Your task to perform on an android device: toggle data saver in the chrome app Image 0: 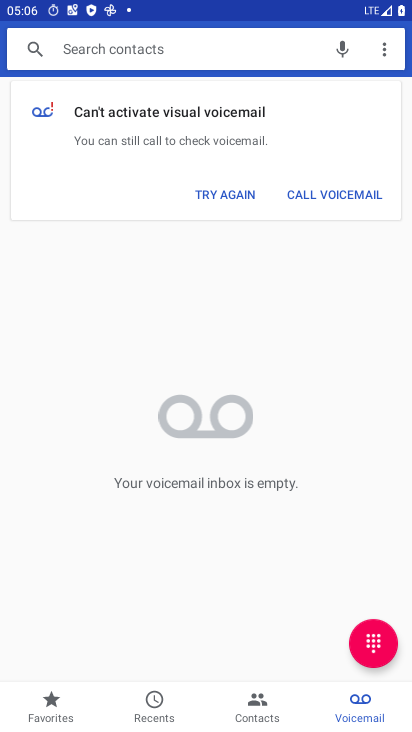
Step 0: press home button
Your task to perform on an android device: toggle data saver in the chrome app Image 1: 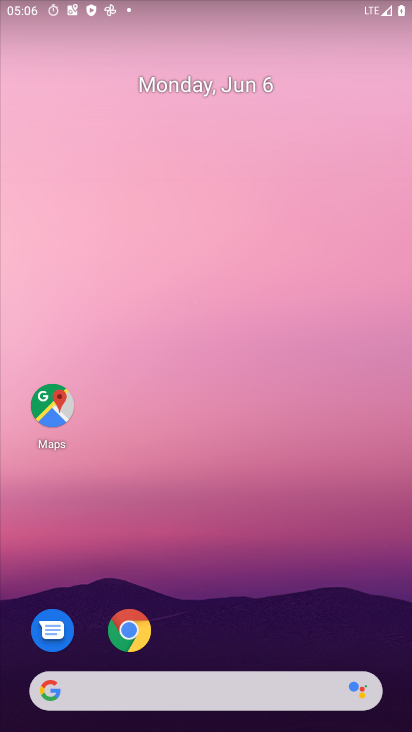
Step 1: drag from (297, 627) to (316, 78)
Your task to perform on an android device: toggle data saver in the chrome app Image 2: 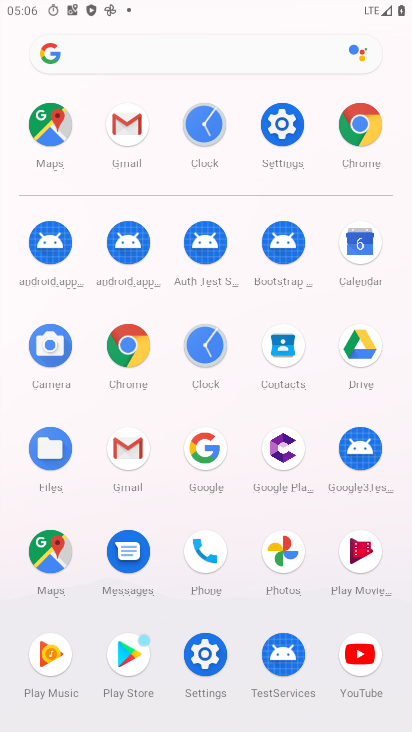
Step 2: click (117, 334)
Your task to perform on an android device: toggle data saver in the chrome app Image 3: 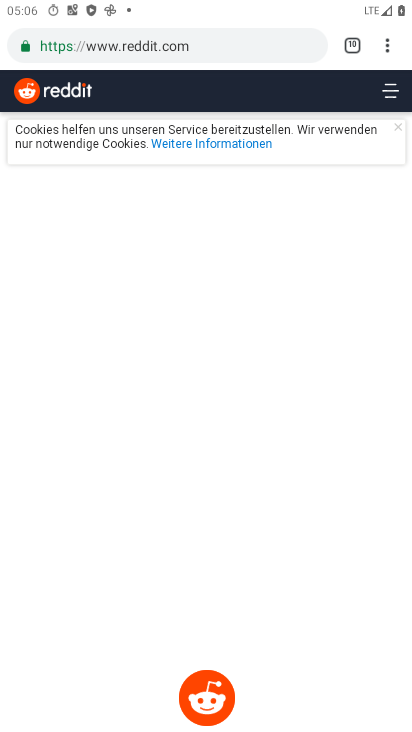
Step 3: drag from (383, 47) to (223, 554)
Your task to perform on an android device: toggle data saver in the chrome app Image 4: 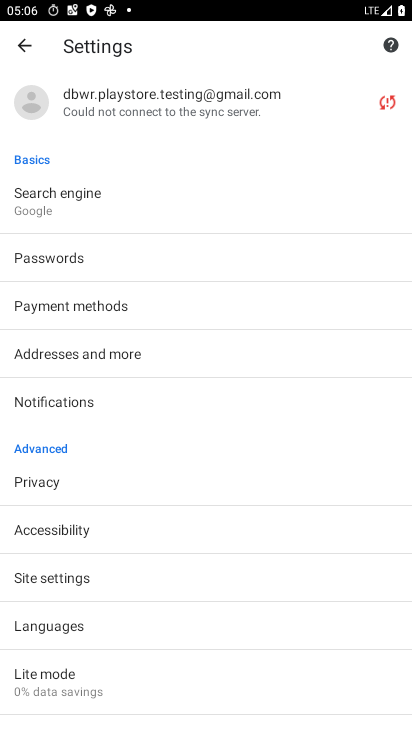
Step 4: click (56, 690)
Your task to perform on an android device: toggle data saver in the chrome app Image 5: 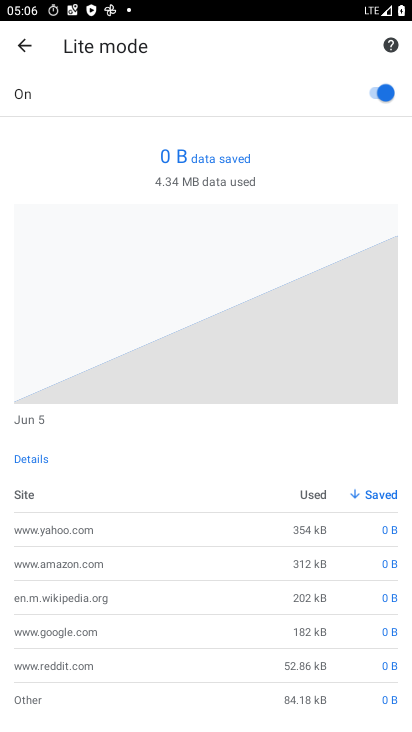
Step 5: drag from (171, 643) to (243, 319)
Your task to perform on an android device: toggle data saver in the chrome app Image 6: 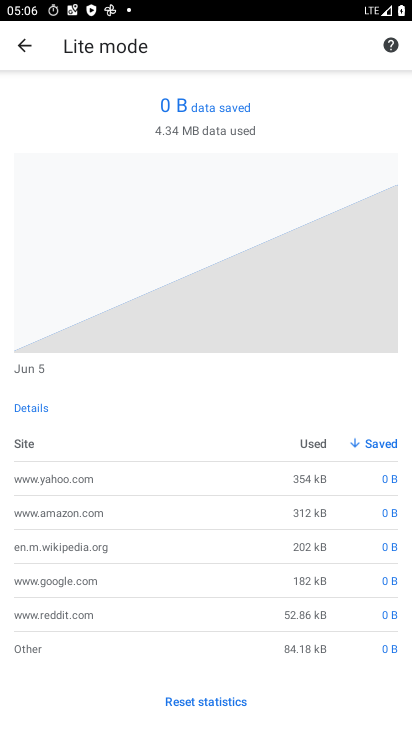
Step 6: drag from (319, 159) to (313, 437)
Your task to perform on an android device: toggle data saver in the chrome app Image 7: 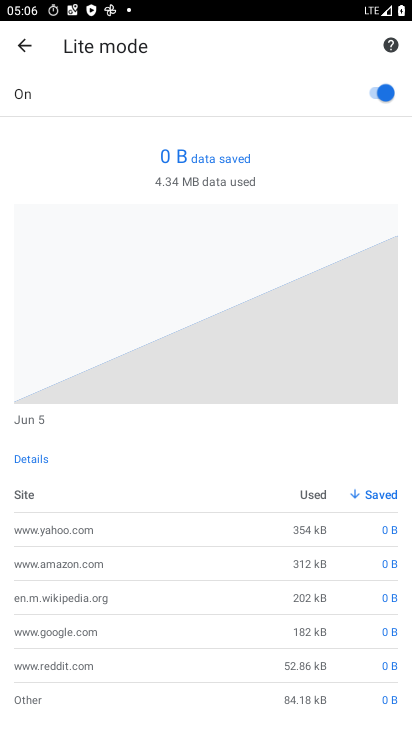
Step 7: click (379, 82)
Your task to perform on an android device: toggle data saver in the chrome app Image 8: 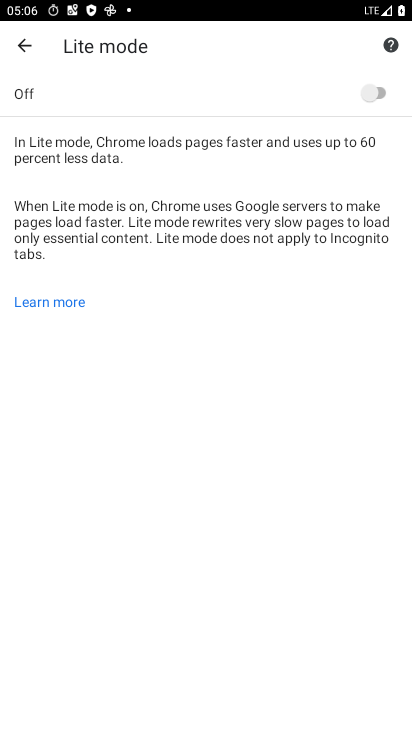
Step 8: task complete